Your task to perform on an android device: turn on priority inbox in the gmail app Image 0: 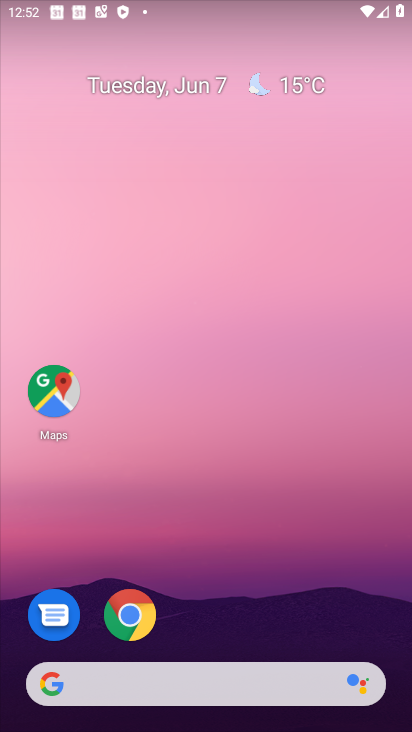
Step 0: drag from (223, 631) to (216, 204)
Your task to perform on an android device: turn on priority inbox in the gmail app Image 1: 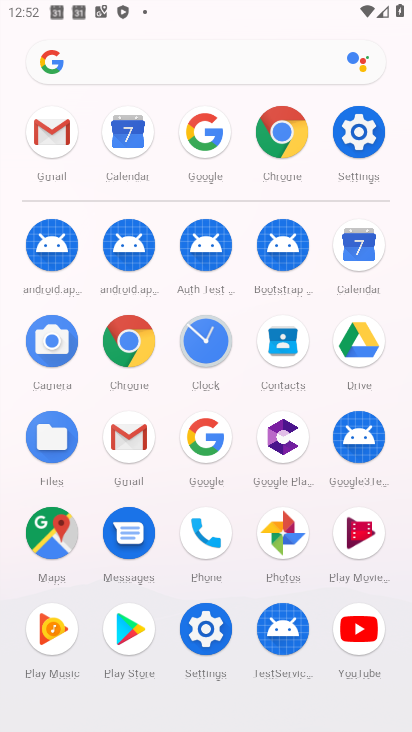
Step 1: click (118, 464)
Your task to perform on an android device: turn on priority inbox in the gmail app Image 2: 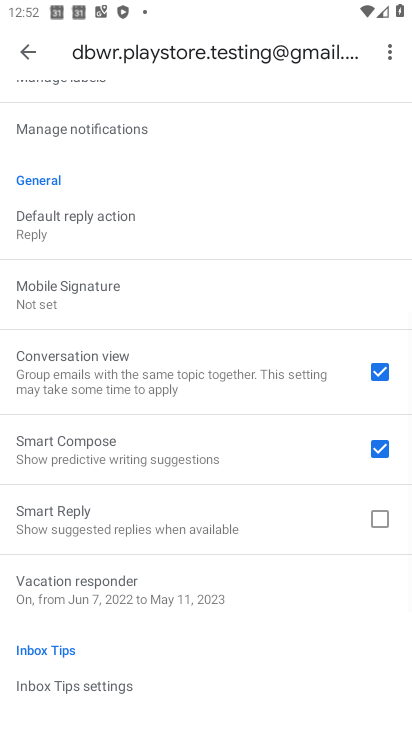
Step 2: drag from (168, 198) to (167, 516)
Your task to perform on an android device: turn on priority inbox in the gmail app Image 3: 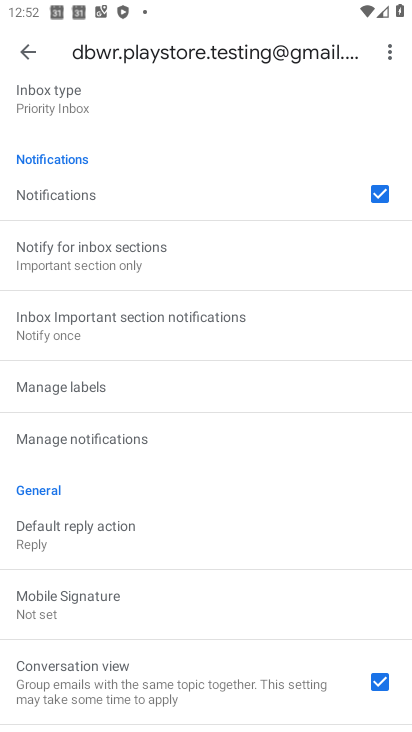
Step 3: drag from (95, 208) to (135, 572)
Your task to perform on an android device: turn on priority inbox in the gmail app Image 4: 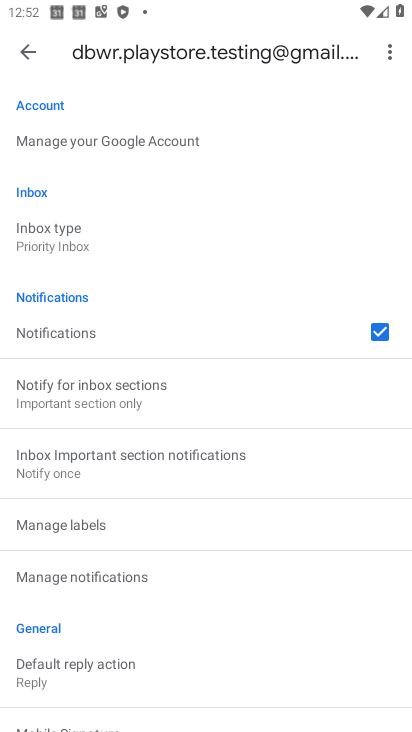
Step 4: click (61, 242)
Your task to perform on an android device: turn on priority inbox in the gmail app Image 5: 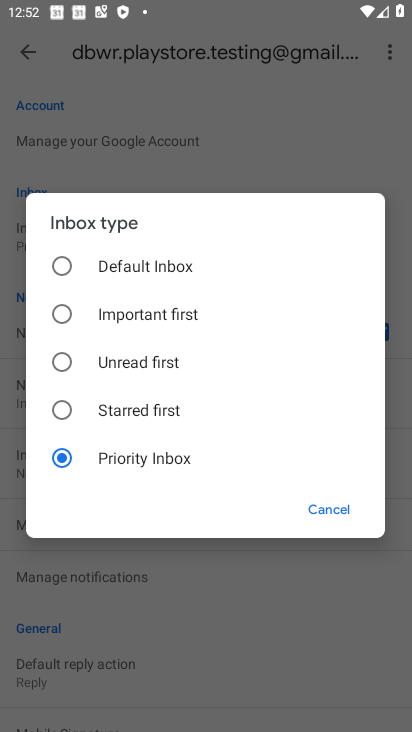
Step 5: task complete